Your task to perform on an android device: Open calendar and show me the fourth week of next month Image 0: 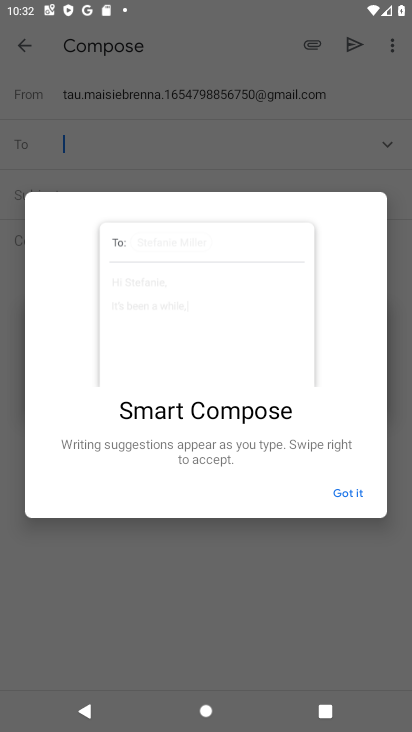
Step 0: press home button
Your task to perform on an android device: Open calendar and show me the fourth week of next month Image 1: 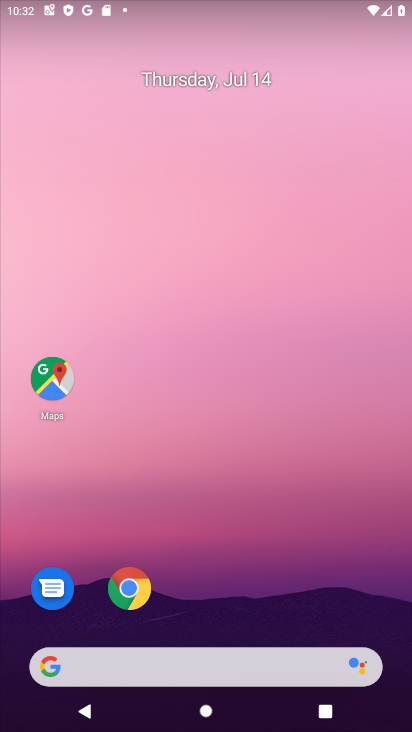
Step 1: drag from (188, 673) to (248, 176)
Your task to perform on an android device: Open calendar and show me the fourth week of next month Image 2: 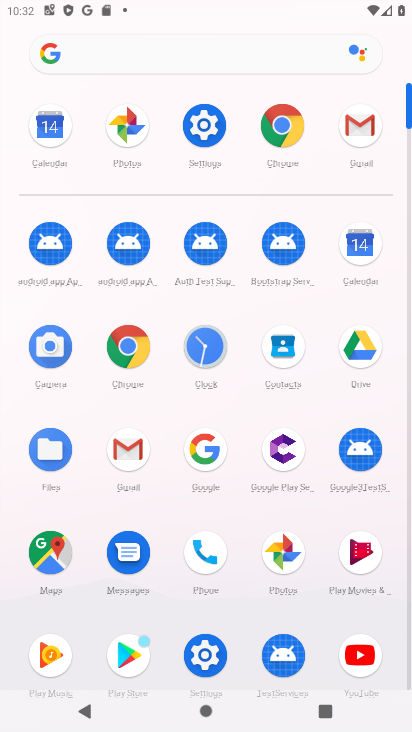
Step 2: click (357, 256)
Your task to perform on an android device: Open calendar and show me the fourth week of next month Image 3: 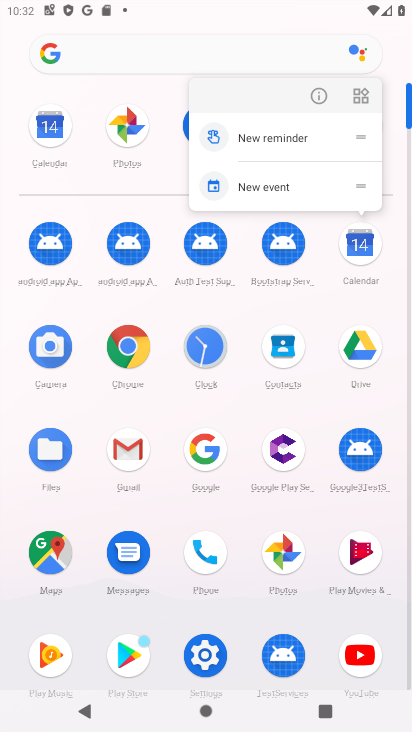
Step 3: click (362, 243)
Your task to perform on an android device: Open calendar and show me the fourth week of next month Image 4: 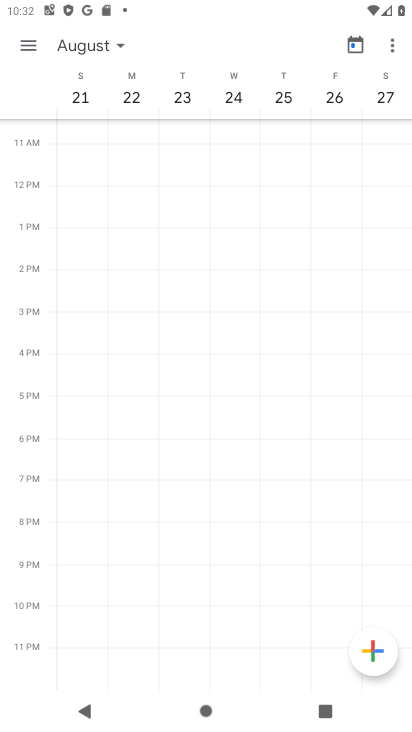
Step 4: click (67, 50)
Your task to perform on an android device: Open calendar and show me the fourth week of next month Image 5: 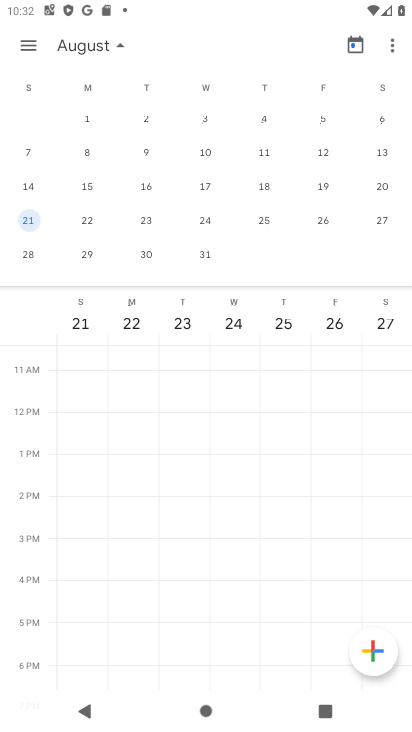
Step 5: task complete